Your task to perform on an android device: turn off priority inbox in the gmail app Image 0: 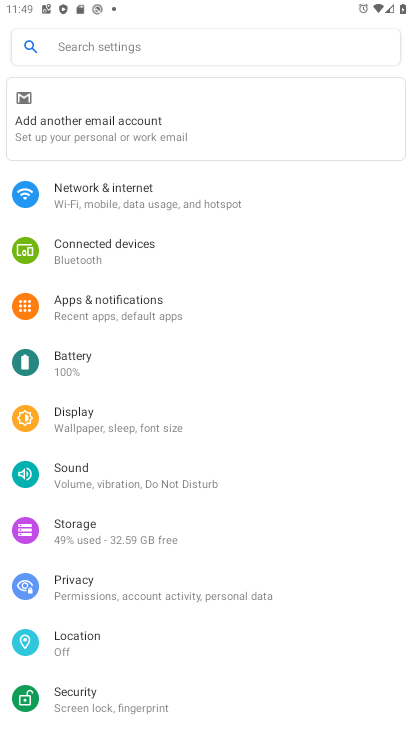
Step 0: press home button
Your task to perform on an android device: turn off priority inbox in the gmail app Image 1: 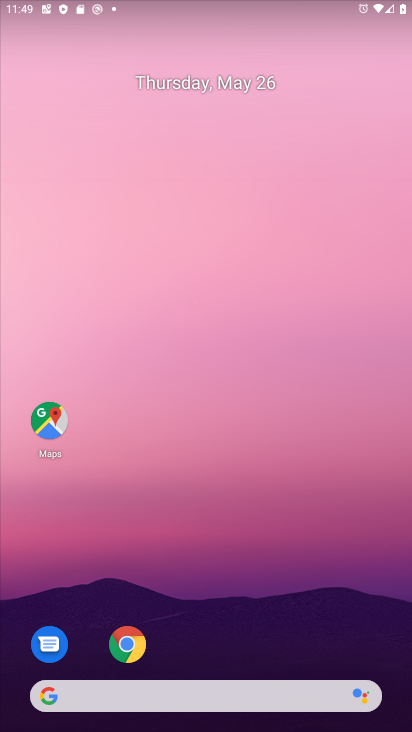
Step 1: drag from (224, 548) to (207, 155)
Your task to perform on an android device: turn off priority inbox in the gmail app Image 2: 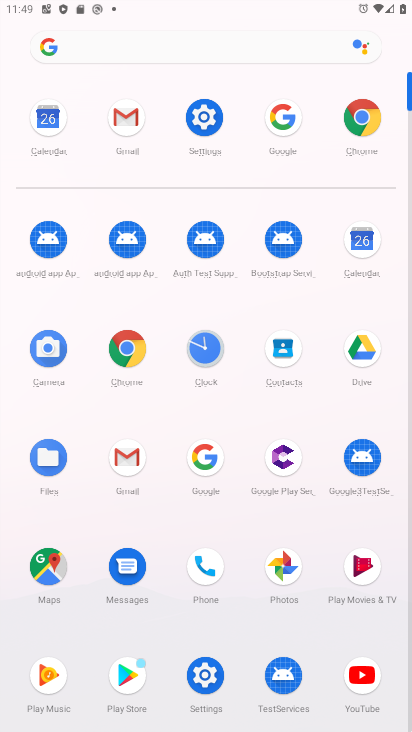
Step 2: click (125, 134)
Your task to perform on an android device: turn off priority inbox in the gmail app Image 3: 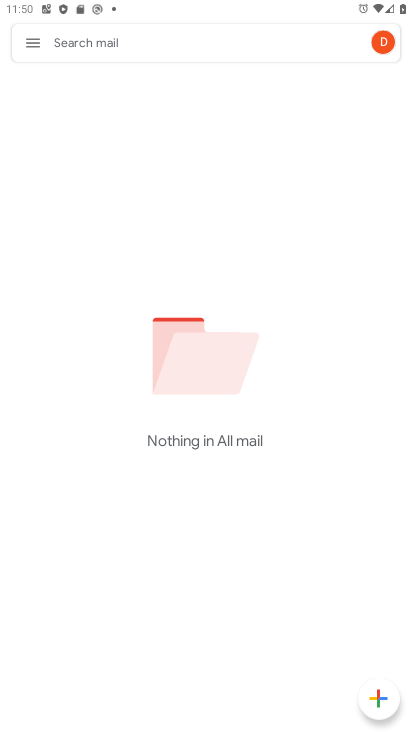
Step 3: click (36, 49)
Your task to perform on an android device: turn off priority inbox in the gmail app Image 4: 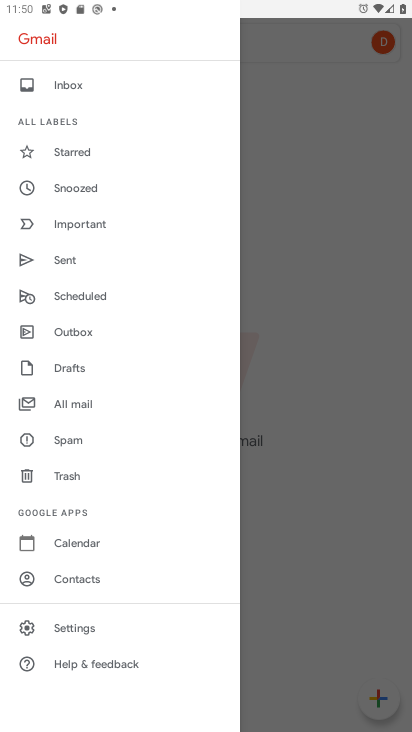
Step 4: click (120, 632)
Your task to perform on an android device: turn off priority inbox in the gmail app Image 5: 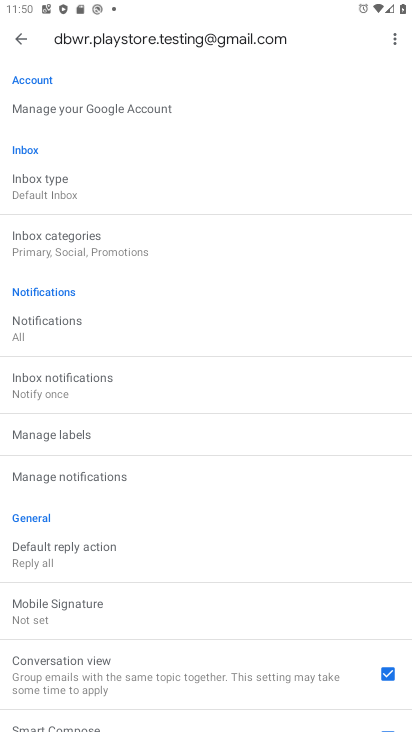
Step 5: click (84, 187)
Your task to perform on an android device: turn off priority inbox in the gmail app Image 6: 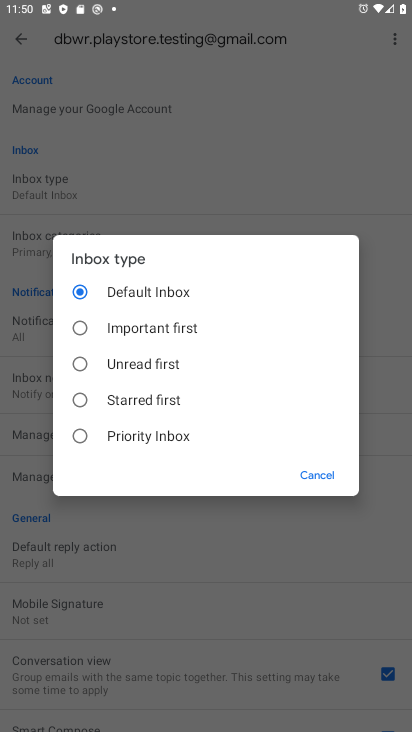
Step 6: task complete